Your task to perform on an android device: Search for seafood restaurants on Google Maps Image 0: 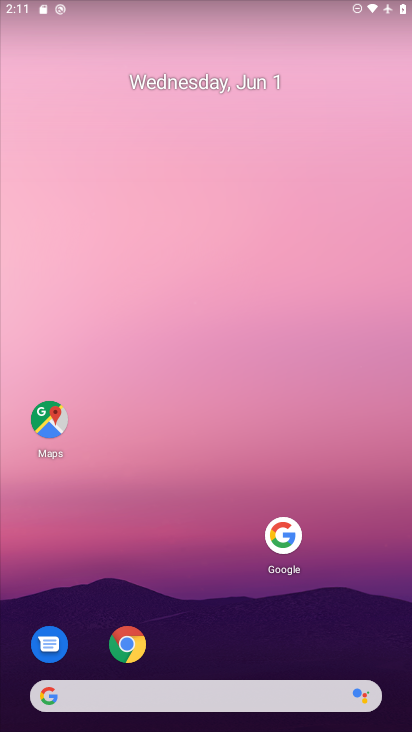
Step 0: press home button
Your task to perform on an android device: Search for seafood restaurants on Google Maps Image 1: 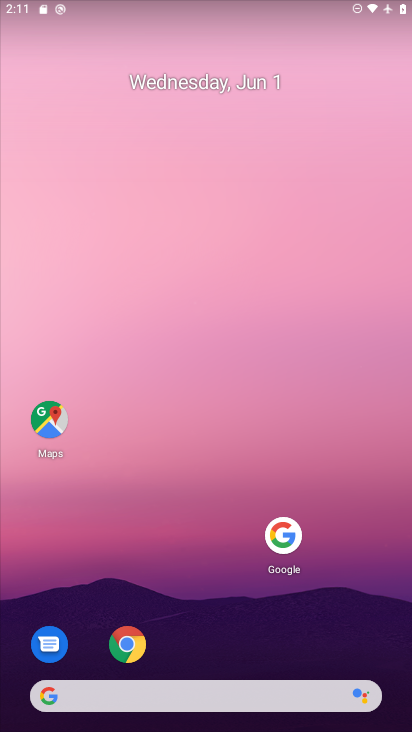
Step 1: click (56, 433)
Your task to perform on an android device: Search for seafood restaurants on Google Maps Image 2: 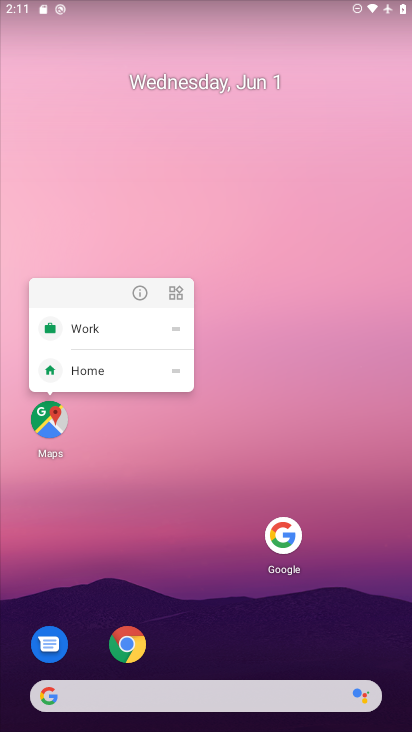
Step 2: click (56, 433)
Your task to perform on an android device: Search for seafood restaurants on Google Maps Image 3: 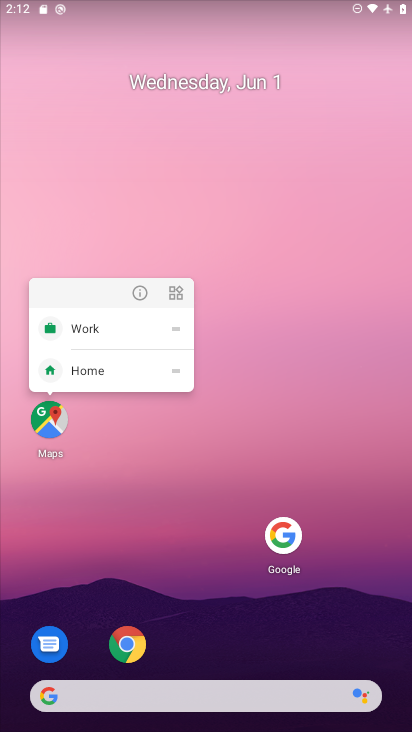
Step 3: click (48, 427)
Your task to perform on an android device: Search for seafood restaurants on Google Maps Image 4: 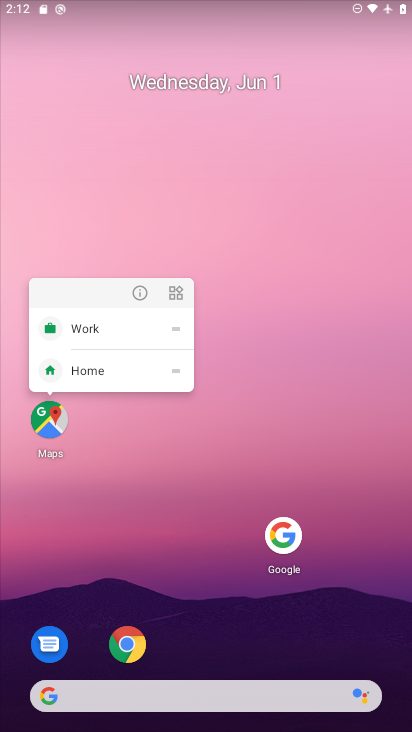
Step 4: click (49, 425)
Your task to perform on an android device: Search for seafood restaurants on Google Maps Image 5: 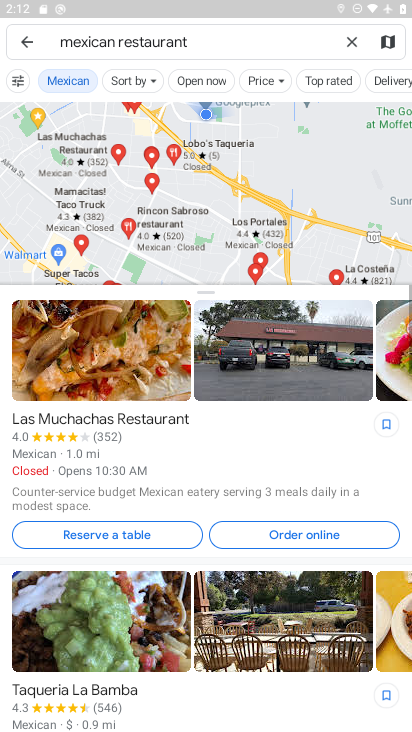
Step 5: click (354, 43)
Your task to perform on an android device: Search for seafood restaurants on Google Maps Image 6: 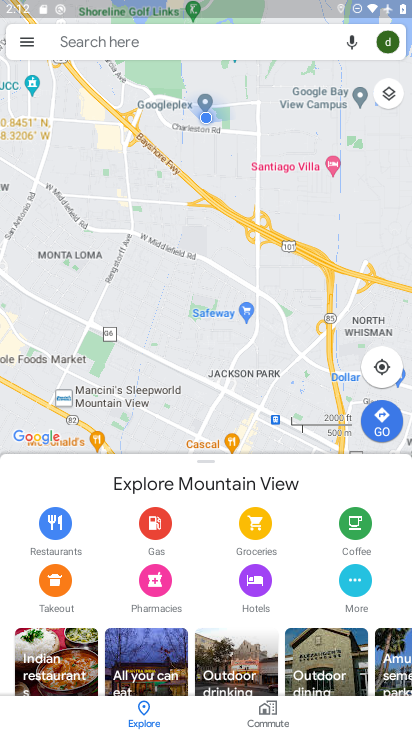
Step 6: click (201, 37)
Your task to perform on an android device: Search for seafood restaurants on Google Maps Image 7: 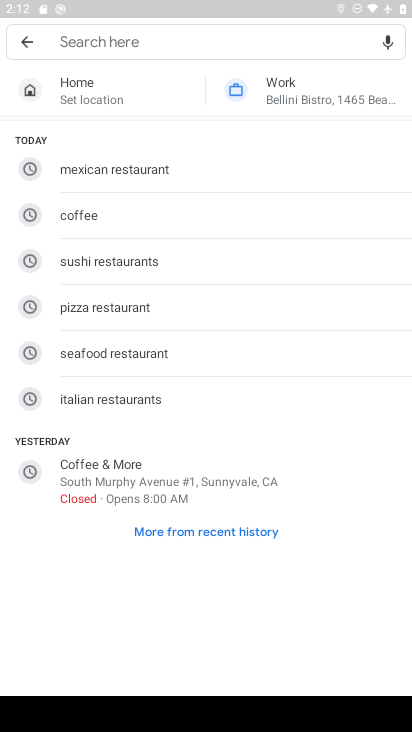
Step 7: click (111, 348)
Your task to perform on an android device: Search for seafood restaurants on Google Maps Image 8: 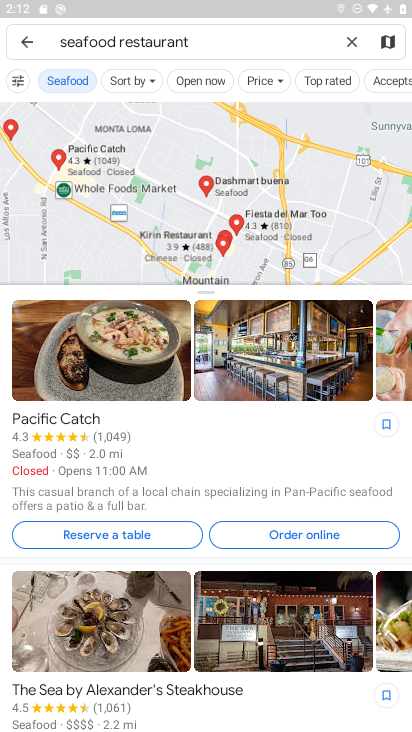
Step 8: task complete